Your task to perform on an android device: toggle notifications settings in the gmail app Image 0: 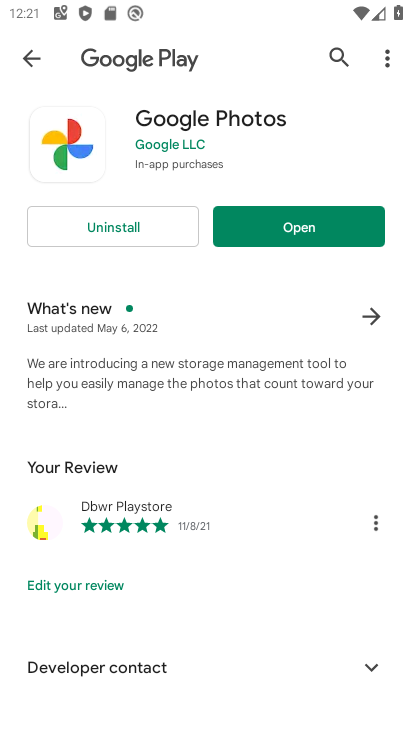
Step 0: press home button
Your task to perform on an android device: toggle notifications settings in the gmail app Image 1: 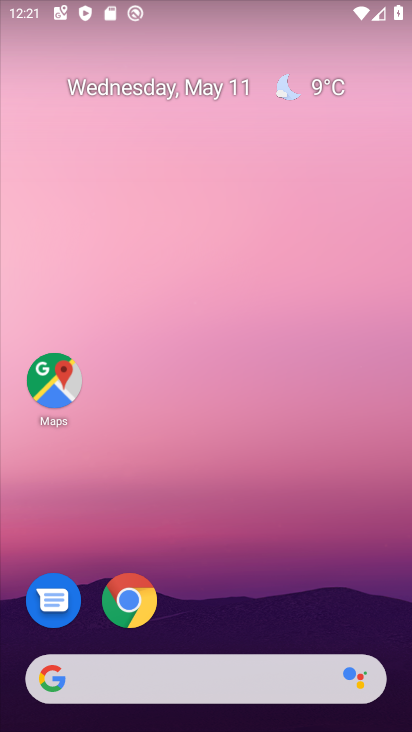
Step 1: drag from (223, 724) to (262, 33)
Your task to perform on an android device: toggle notifications settings in the gmail app Image 2: 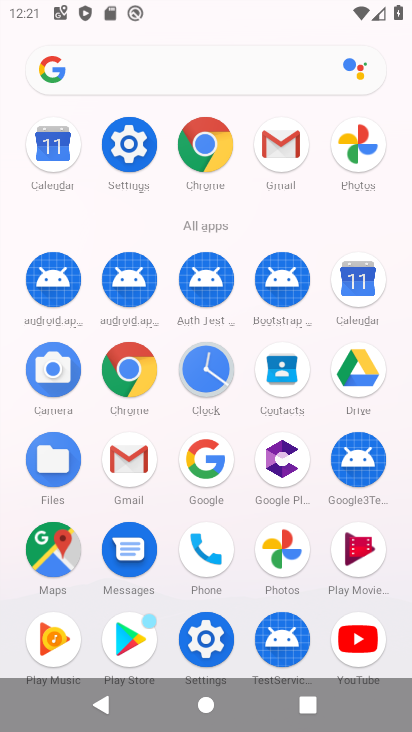
Step 2: click (291, 148)
Your task to perform on an android device: toggle notifications settings in the gmail app Image 3: 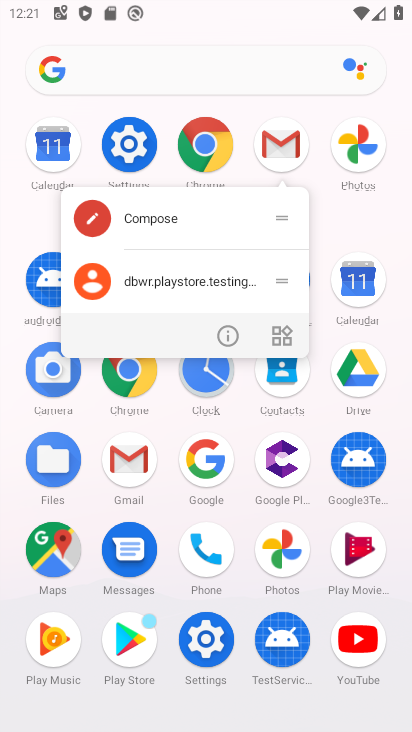
Step 3: click (223, 333)
Your task to perform on an android device: toggle notifications settings in the gmail app Image 4: 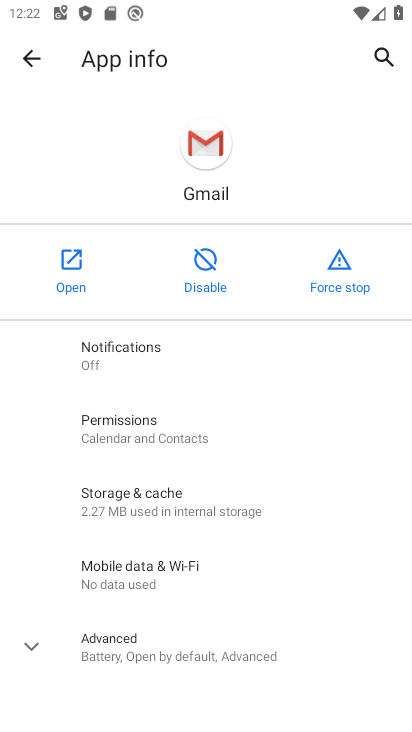
Step 4: click (148, 362)
Your task to perform on an android device: toggle notifications settings in the gmail app Image 5: 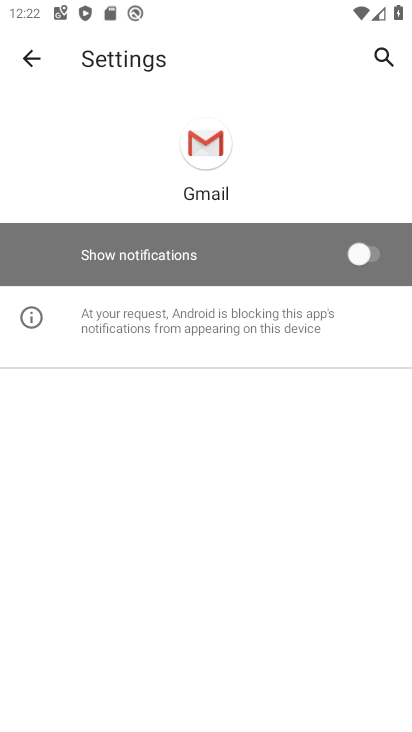
Step 5: click (364, 249)
Your task to perform on an android device: toggle notifications settings in the gmail app Image 6: 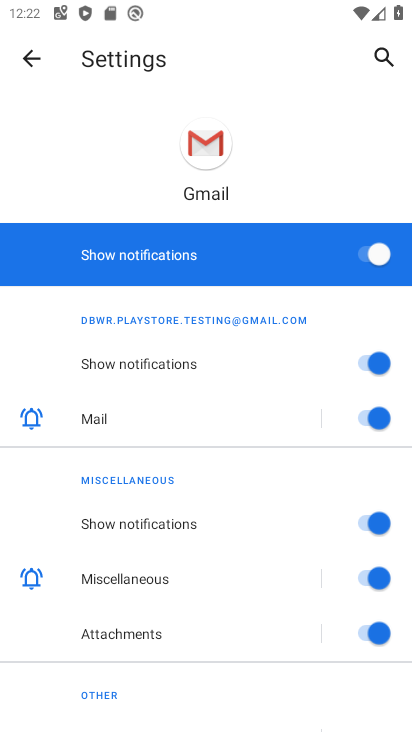
Step 6: task complete